Your task to perform on an android device: Open the map Image 0: 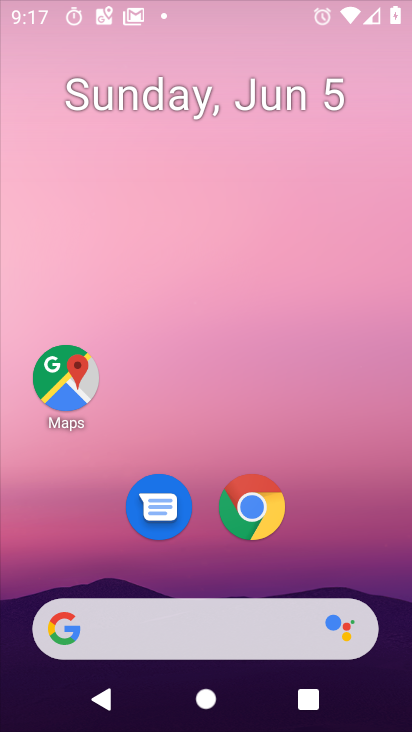
Step 0: press home button
Your task to perform on an android device: Open the map Image 1: 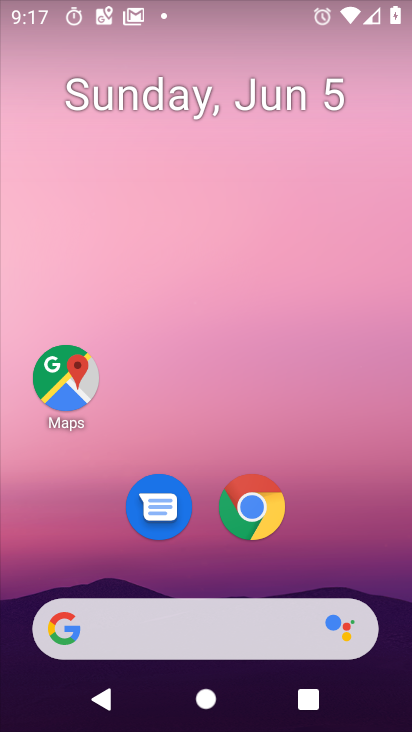
Step 1: drag from (241, 660) to (191, 155)
Your task to perform on an android device: Open the map Image 2: 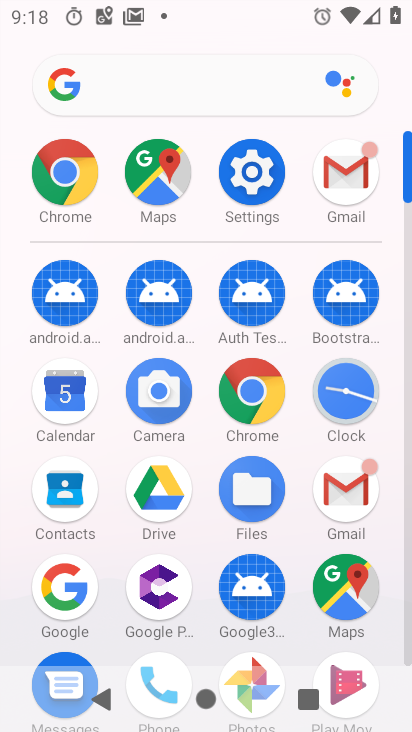
Step 2: click (163, 150)
Your task to perform on an android device: Open the map Image 3: 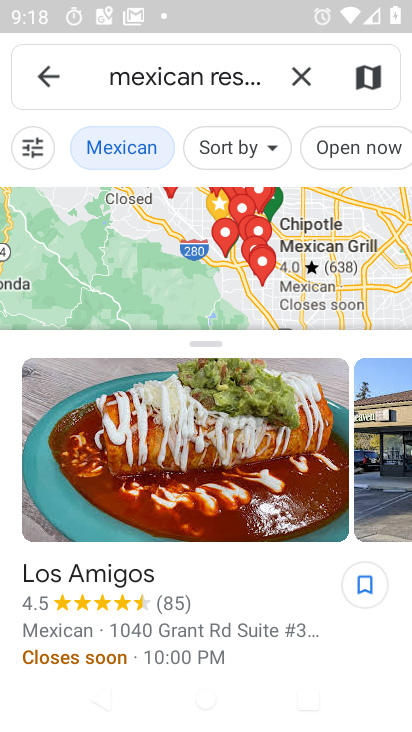
Step 3: click (56, 82)
Your task to perform on an android device: Open the map Image 4: 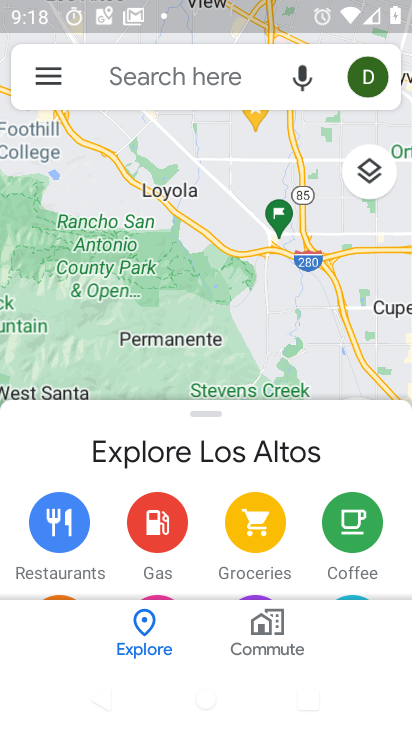
Step 4: click (176, 330)
Your task to perform on an android device: Open the map Image 5: 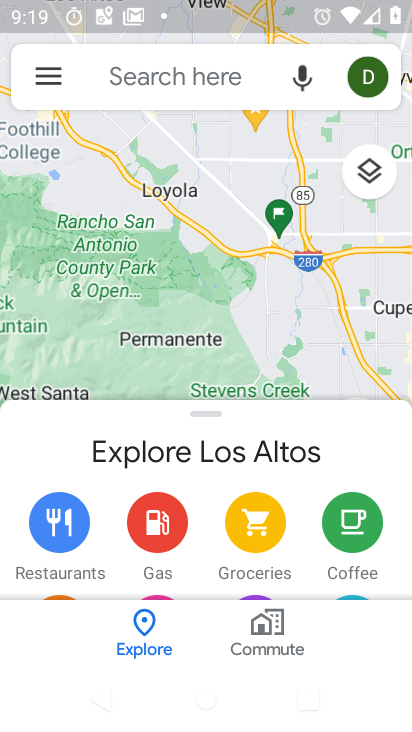
Step 5: task complete